Your task to perform on an android device: open chrome privacy settings Image 0: 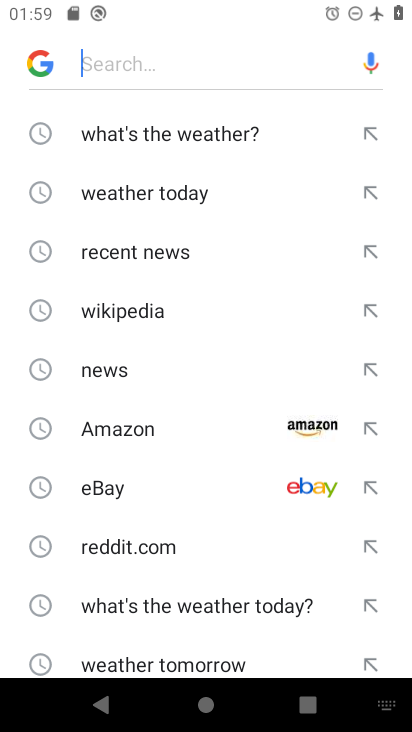
Step 0: press home button
Your task to perform on an android device: open chrome privacy settings Image 1: 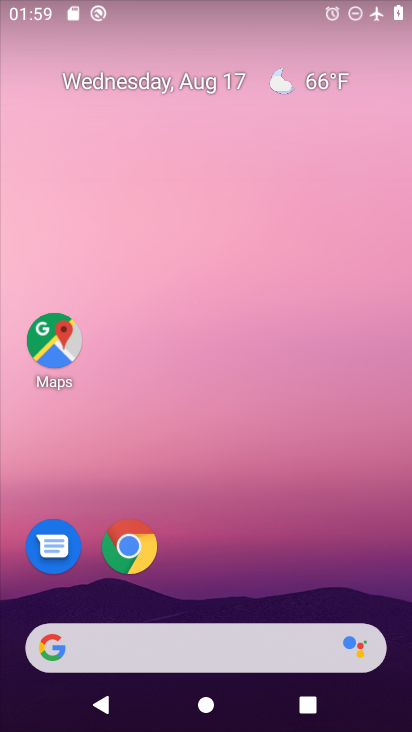
Step 1: click (131, 548)
Your task to perform on an android device: open chrome privacy settings Image 2: 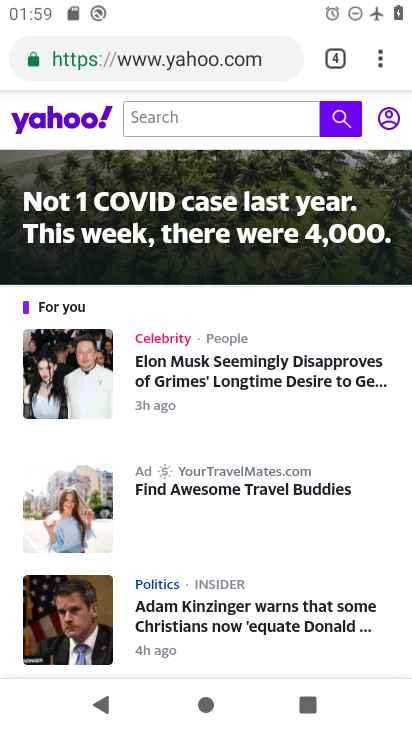
Step 2: click (382, 56)
Your task to perform on an android device: open chrome privacy settings Image 3: 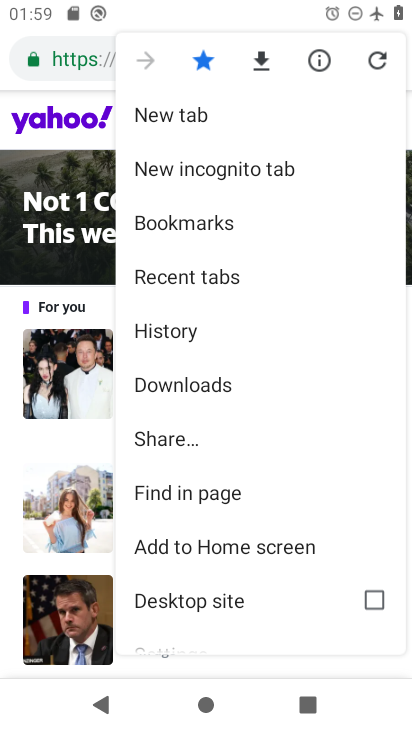
Step 3: drag from (290, 553) to (239, 235)
Your task to perform on an android device: open chrome privacy settings Image 4: 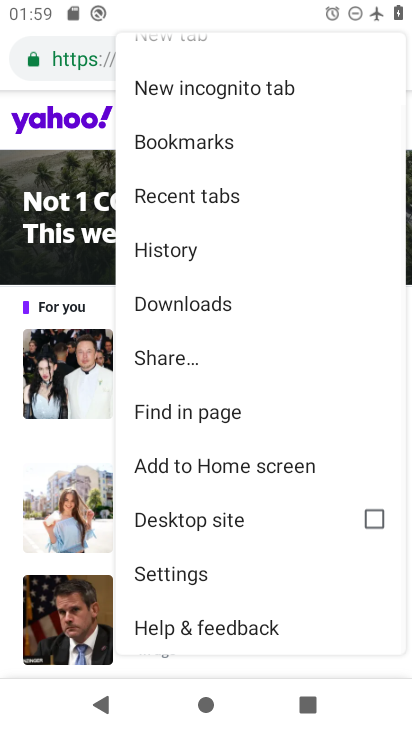
Step 4: click (199, 571)
Your task to perform on an android device: open chrome privacy settings Image 5: 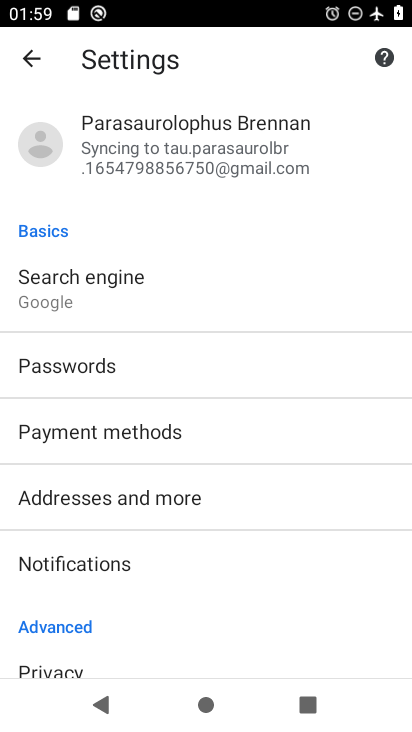
Step 5: click (52, 661)
Your task to perform on an android device: open chrome privacy settings Image 6: 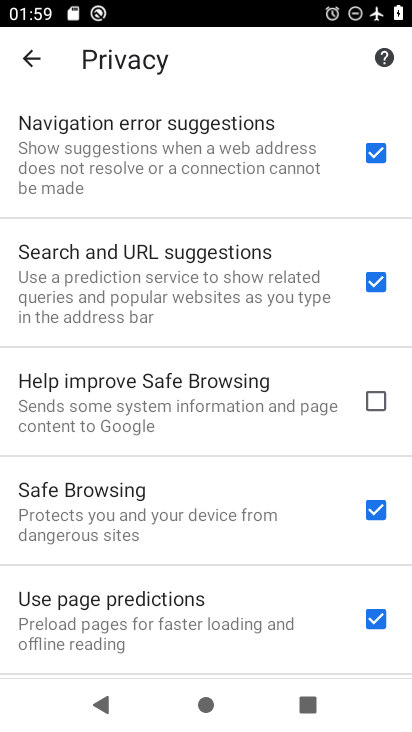
Step 6: task complete